Your task to perform on an android device: Do I have any events this weekend? Image 0: 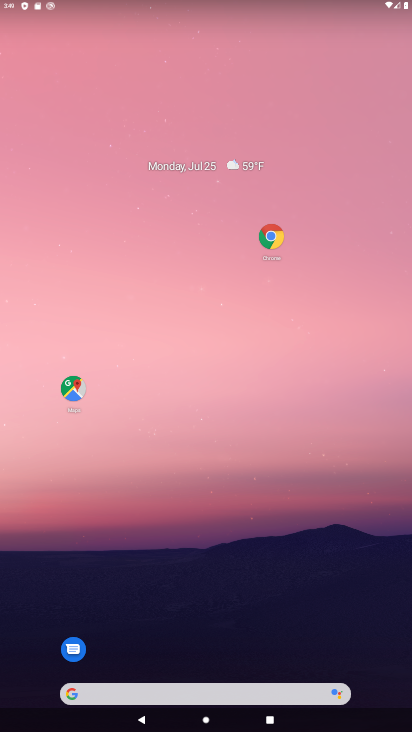
Step 0: drag from (174, 729) to (311, 140)
Your task to perform on an android device: Do I have any events this weekend? Image 1: 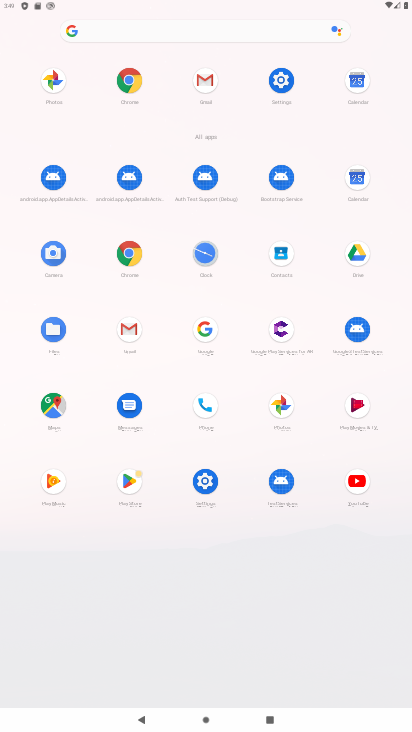
Step 1: click (352, 196)
Your task to perform on an android device: Do I have any events this weekend? Image 2: 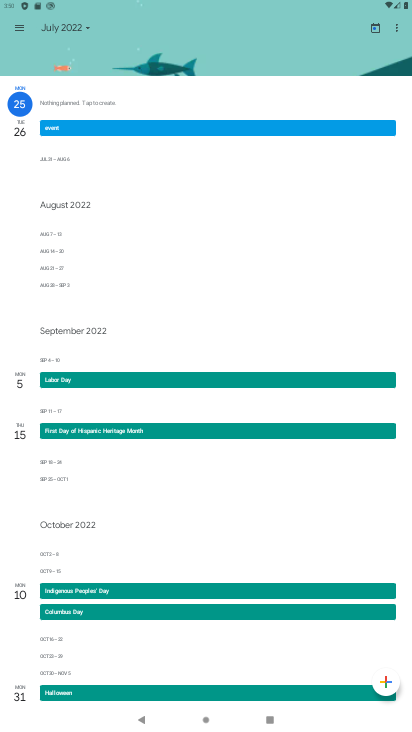
Step 2: task complete